Your task to perform on an android device: Turn on the flashlight Image 0: 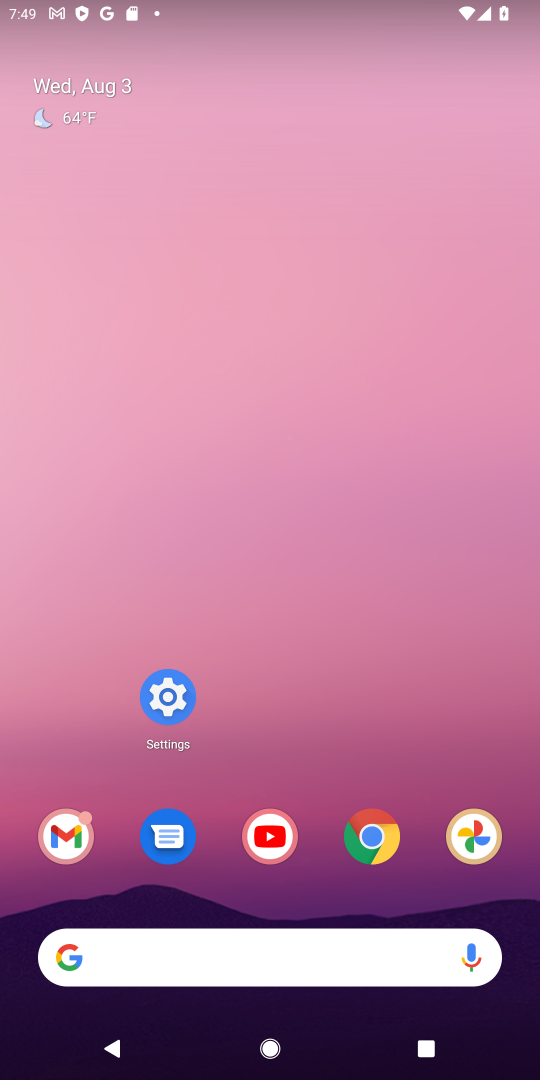
Step 0: click (166, 709)
Your task to perform on an android device: Turn on the flashlight Image 1: 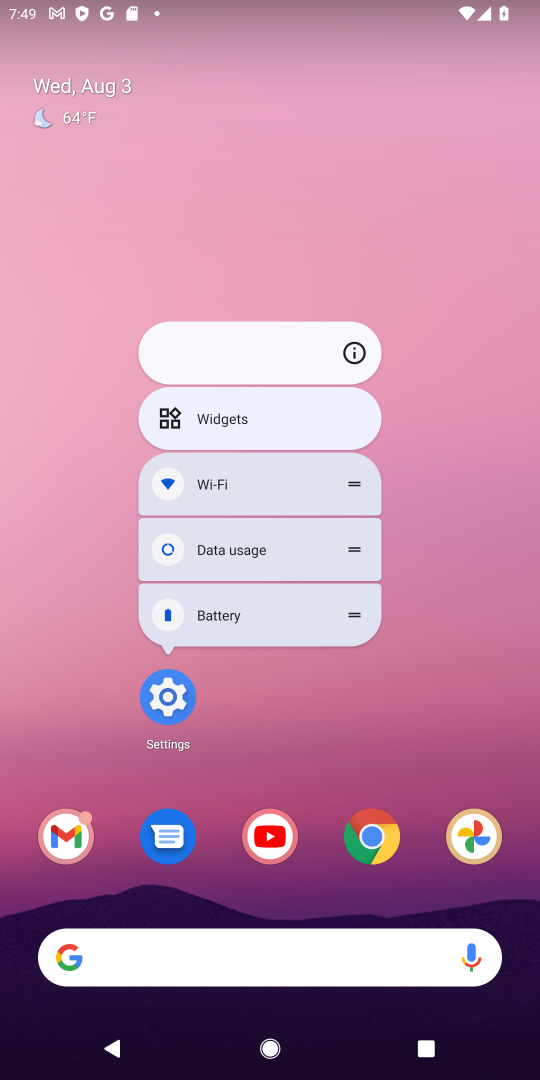
Step 1: click (166, 709)
Your task to perform on an android device: Turn on the flashlight Image 2: 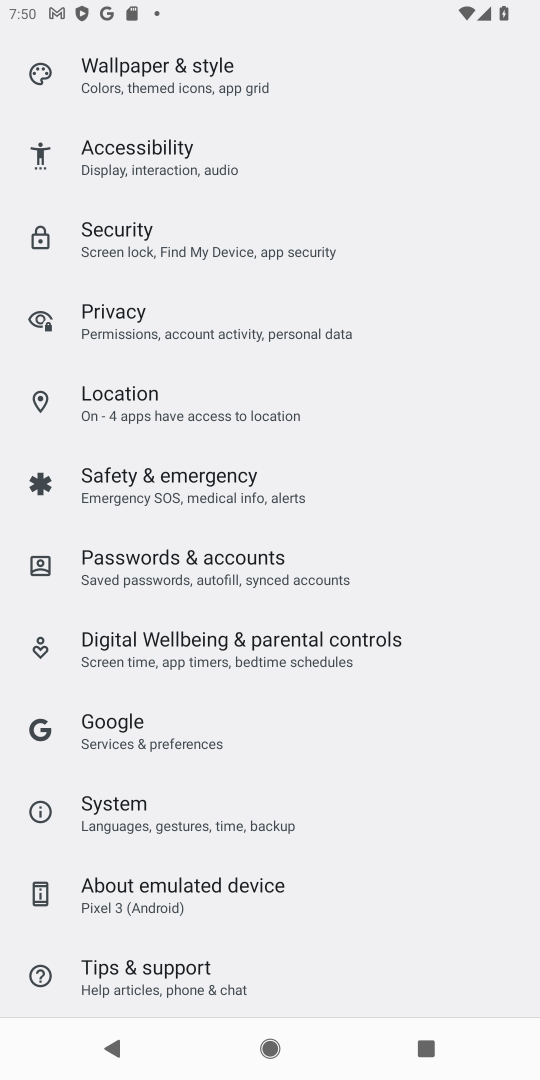
Step 2: drag from (371, 586) to (360, 807)
Your task to perform on an android device: Turn on the flashlight Image 3: 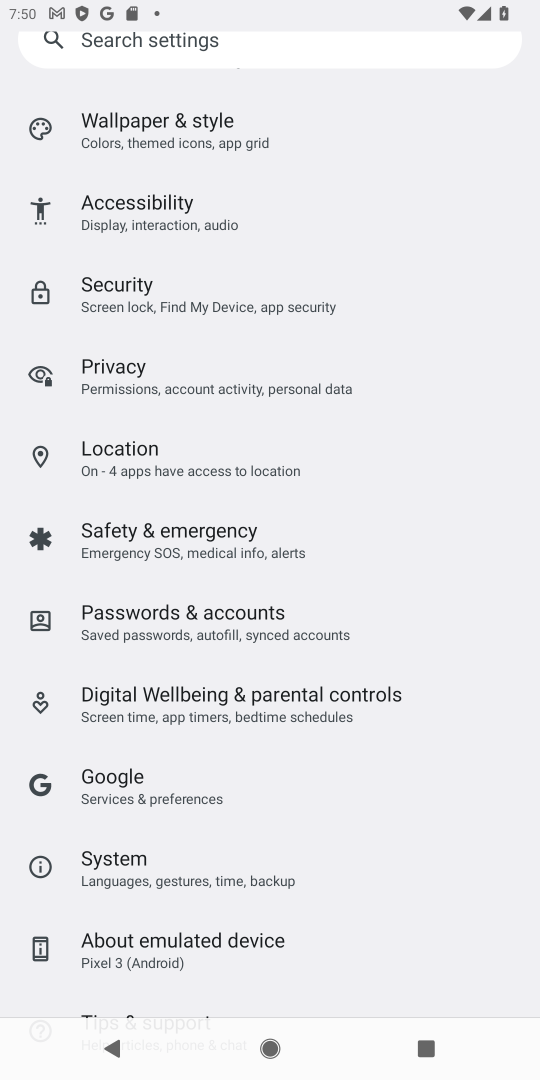
Step 3: click (226, 121)
Your task to perform on an android device: Turn on the flashlight Image 4: 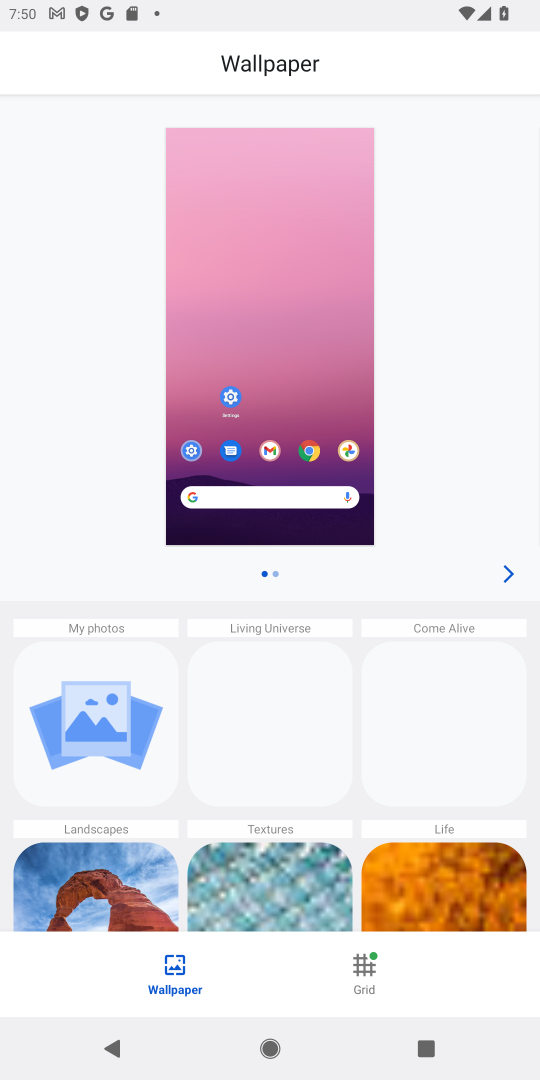
Step 4: task complete